Your task to perform on an android device: open app "eBay: The shopping marketplace" (install if not already installed) Image 0: 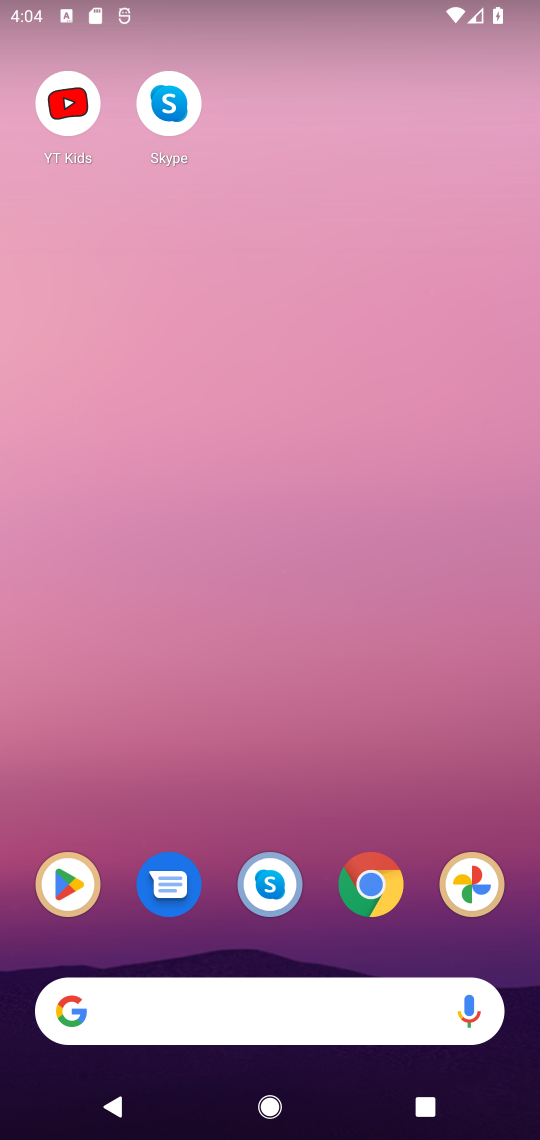
Step 0: click (75, 880)
Your task to perform on an android device: open app "eBay: The shopping marketplace" (install if not already installed) Image 1: 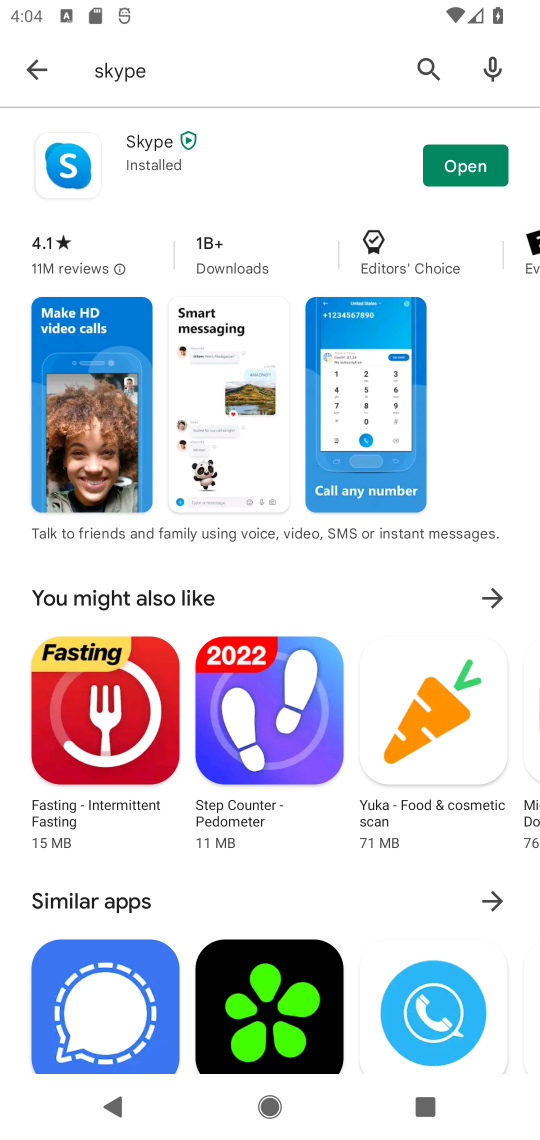
Step 1: click (57, 73)
Your task to perform on an android device: open app "eBay: The shopping marketplace" (install if not already installed) Image 2: 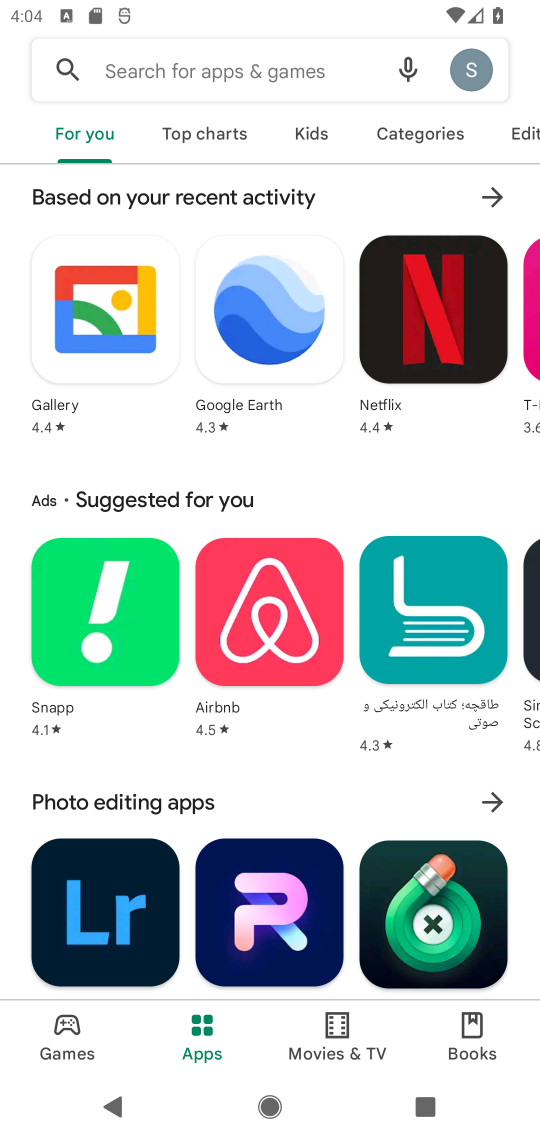
Step 2: click (121, 75)
Your task to perform on an android device: open app "eBay: The shopping marketplace" (install if not already installed) Image 3: 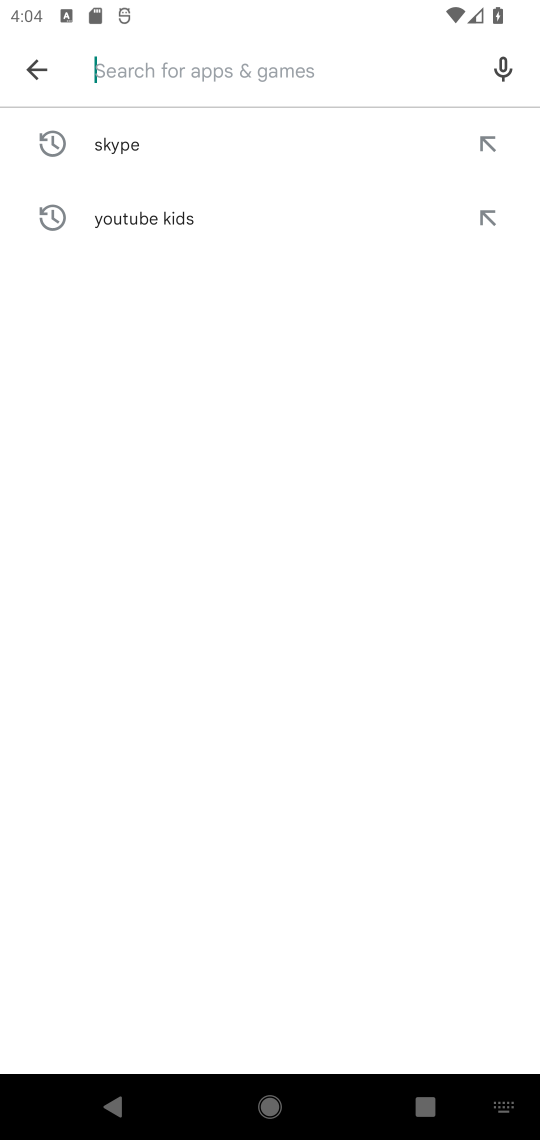
Step 3: type "eBay"
Your task to perform on an android device: open app "eBay: The shopping marketplace" (install if not already installed) Image 4: 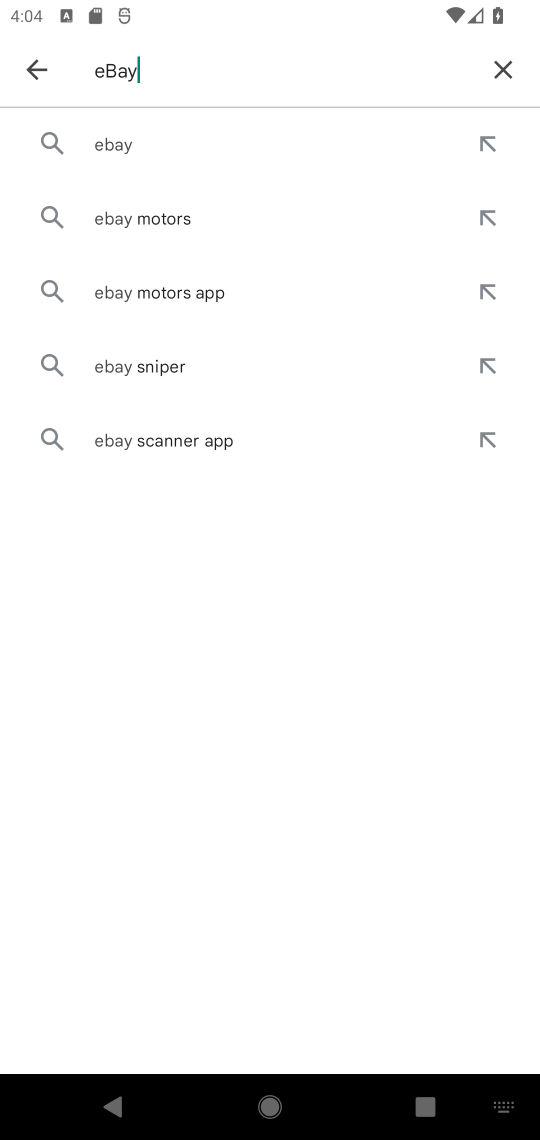
Step 4: click (121, 155)
Your task to perform on an android device: open app "eBay: The shopping marketplace" (install if not already installed) Image 5: 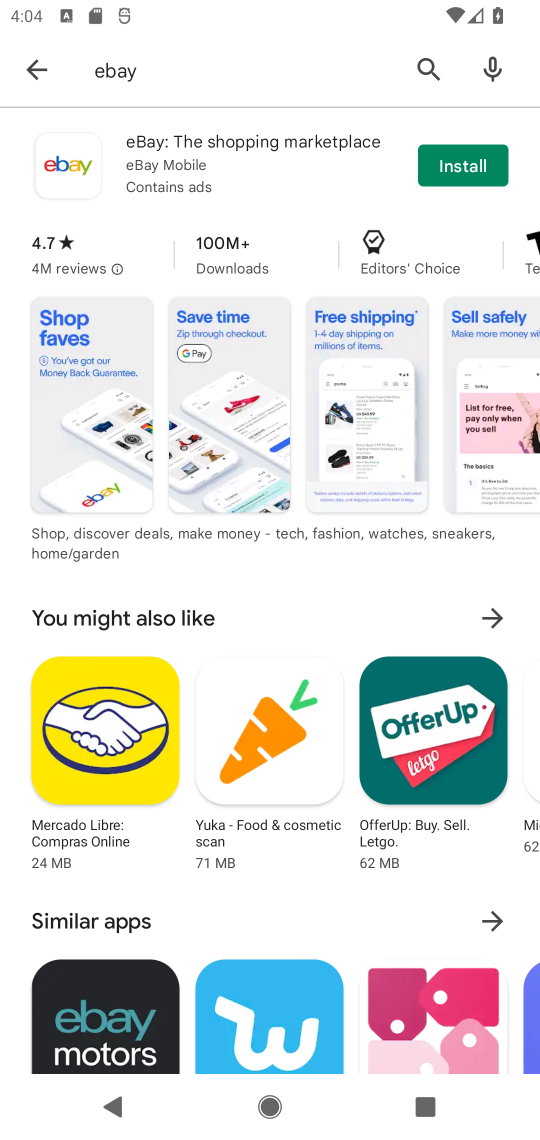
Step 5: click (476, 168)
Your task to perform on an android device: open app "eBay: The shopping marketplace" (install if not already installed) Image 6: 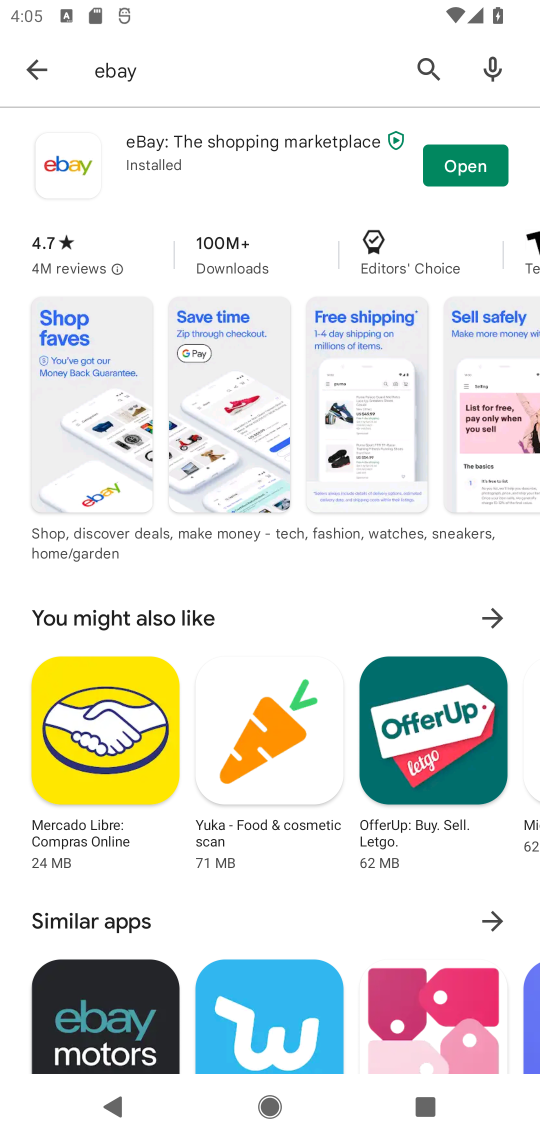
Step 6: click (468, 163)
Your task to perform on an android device: open app "eBay: The shopping marketplace" (install if not already installed) Image 7: 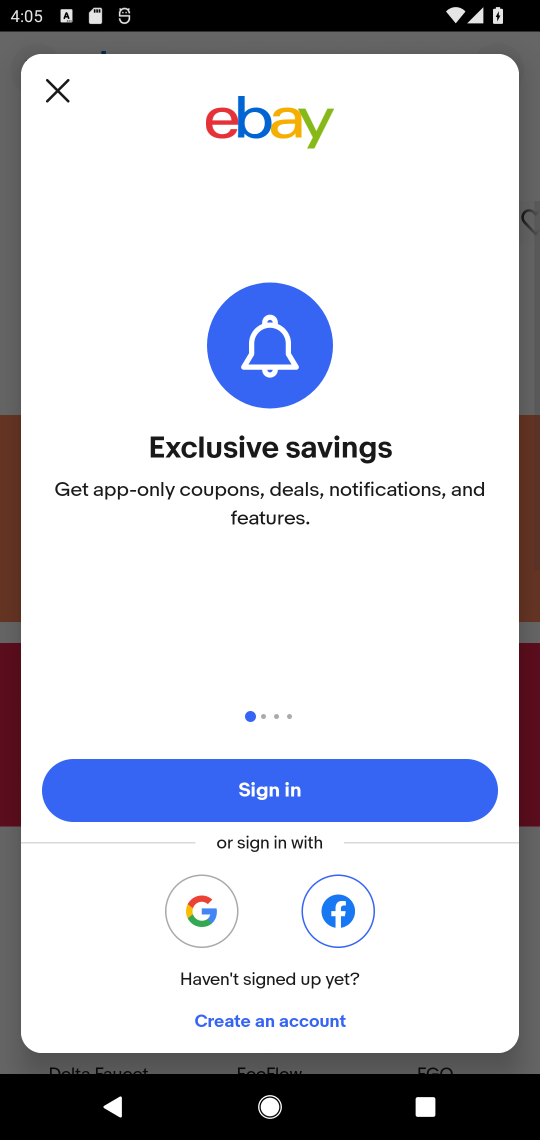
Step 7: task complete